Your task to perform on an android device: change text size in settings app Image 0: 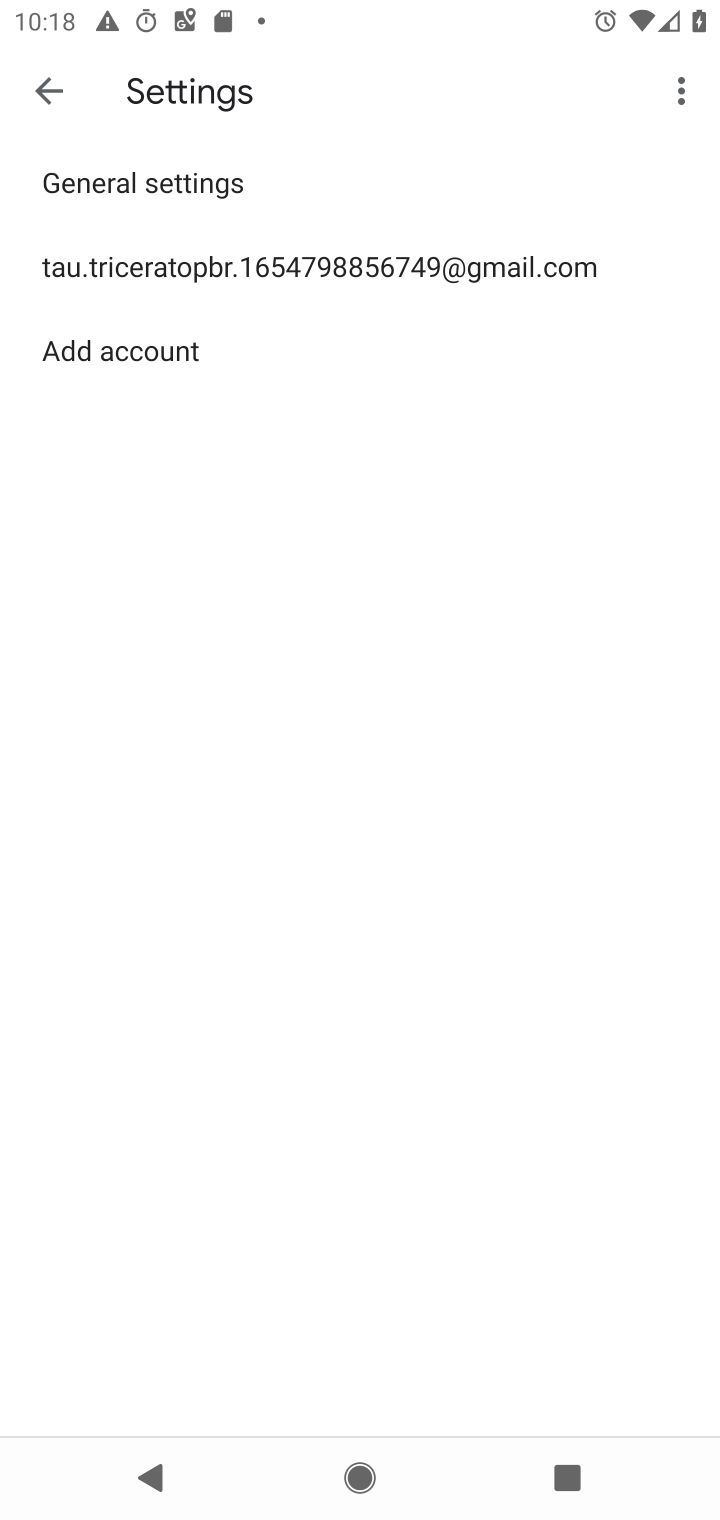
Step 0: press home button
Your task to perform on an android device: change text size in settings app Image 1: 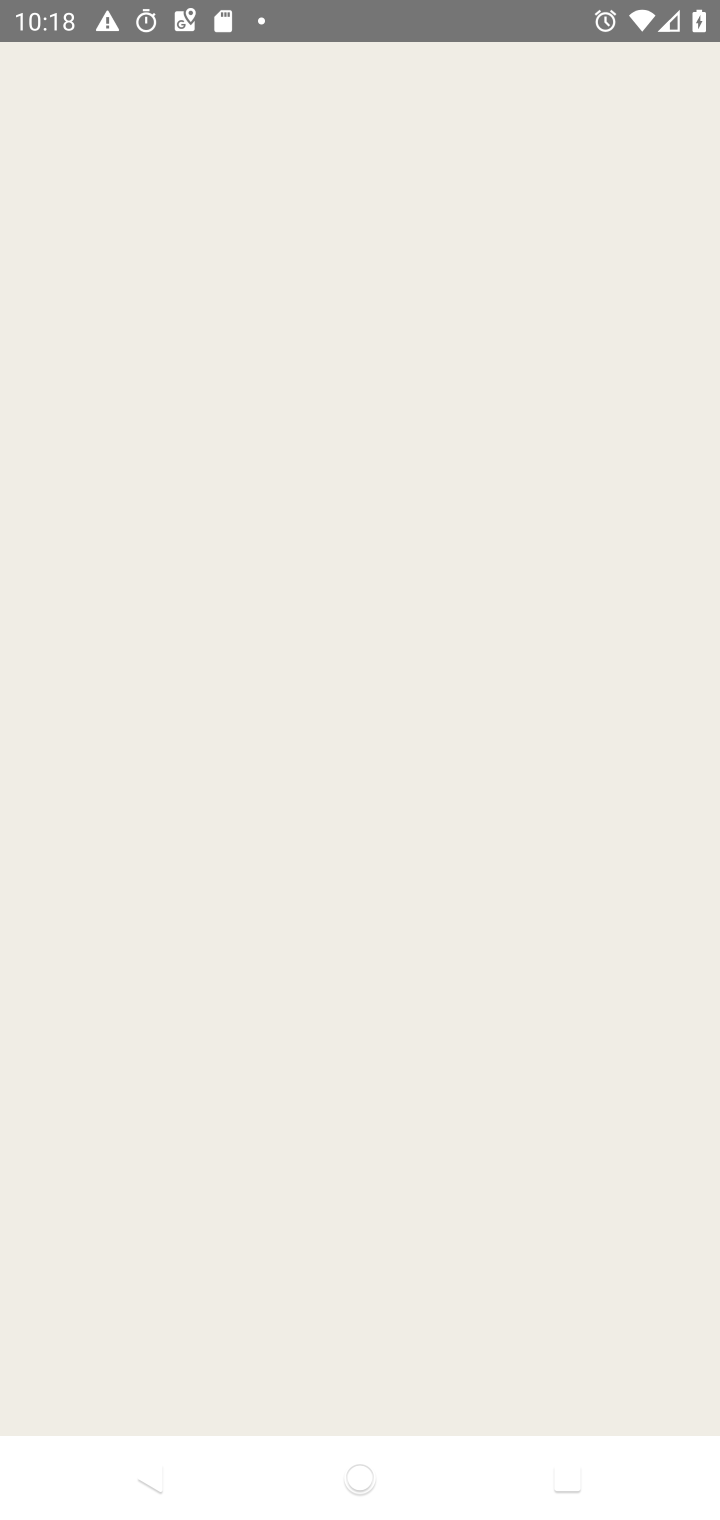
Step 1: press home button
Your task to perform on an android device: change text size in settings app Image 2: 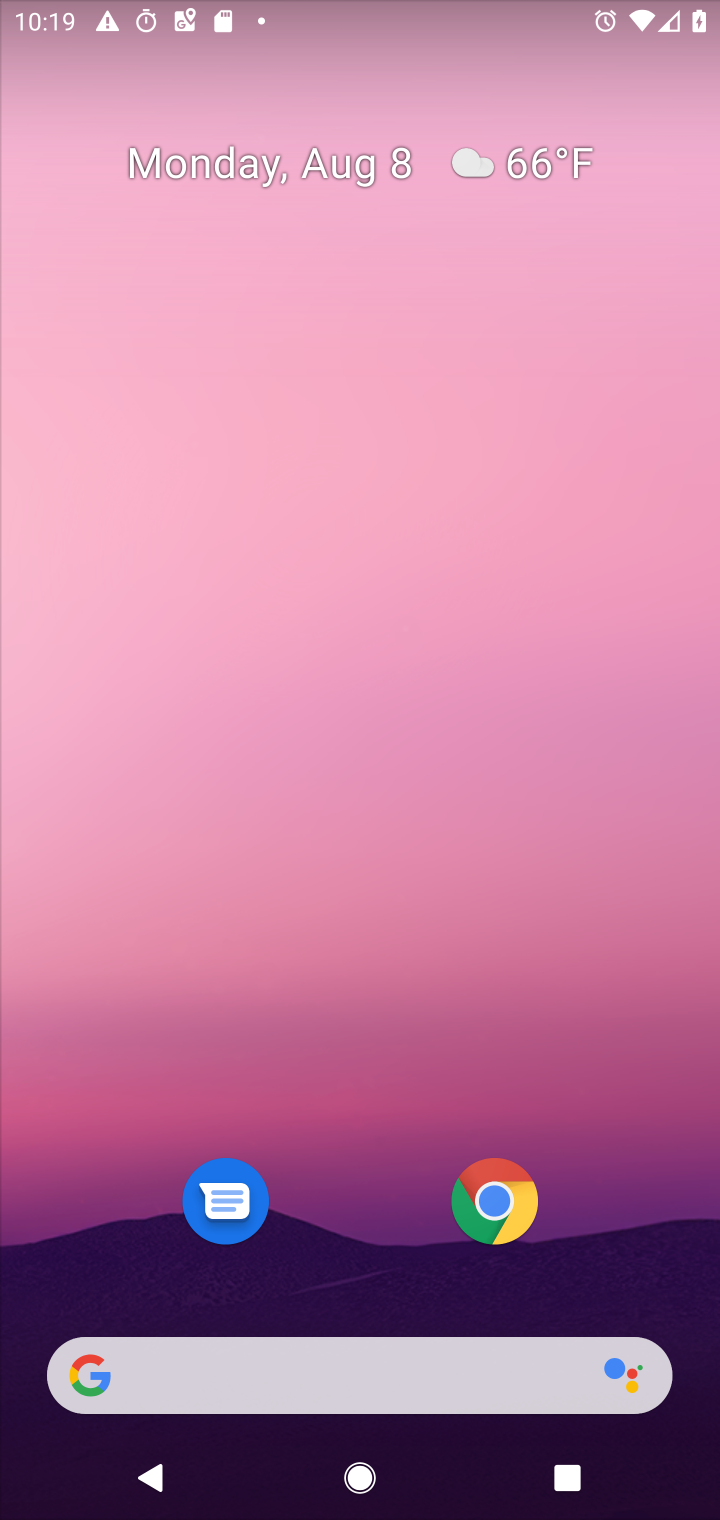
Step 2: drag from (402, 997) to (481, 184)
Your task to perform on an android device: change text size in settings app Image 3: 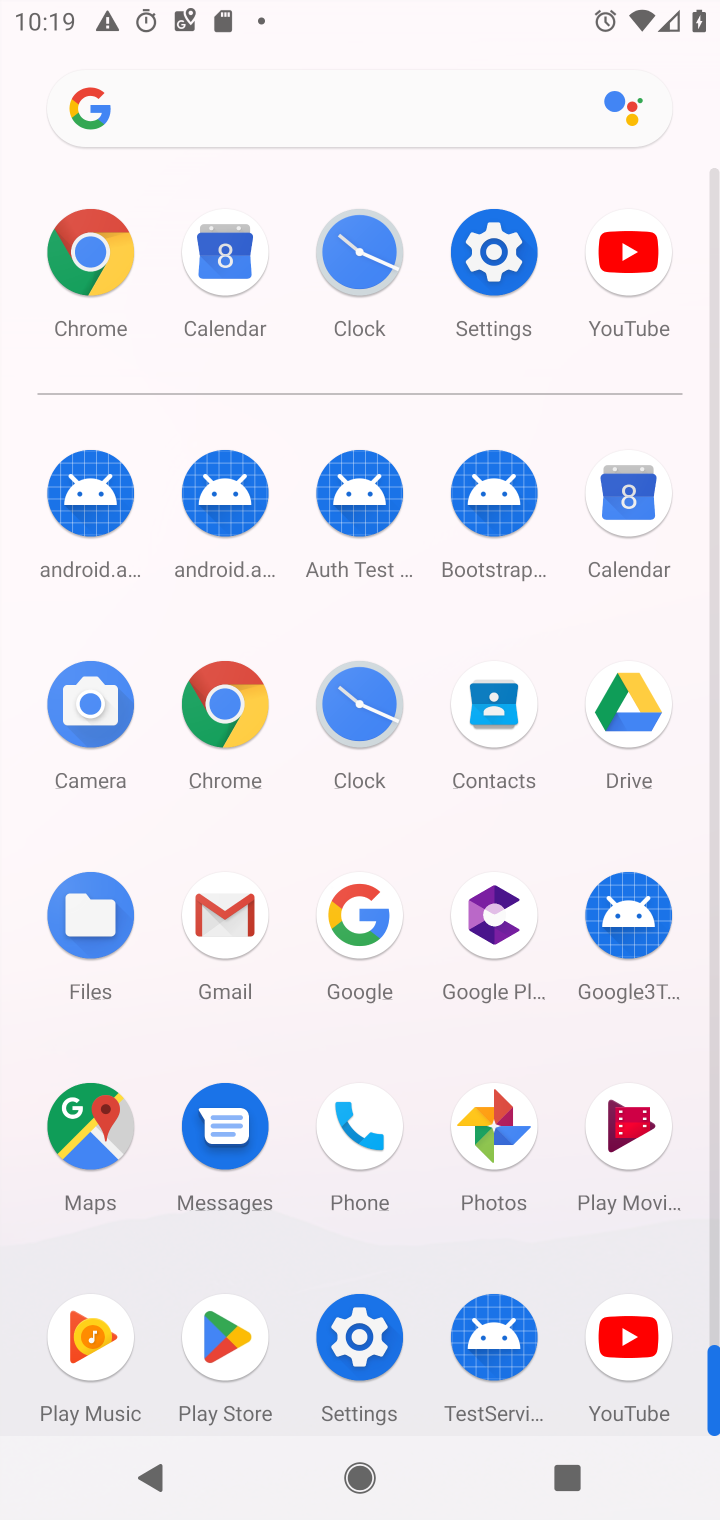
Step 3: click (498, 255)
Your task to perform on an android device: change text size in settings app Image 4: 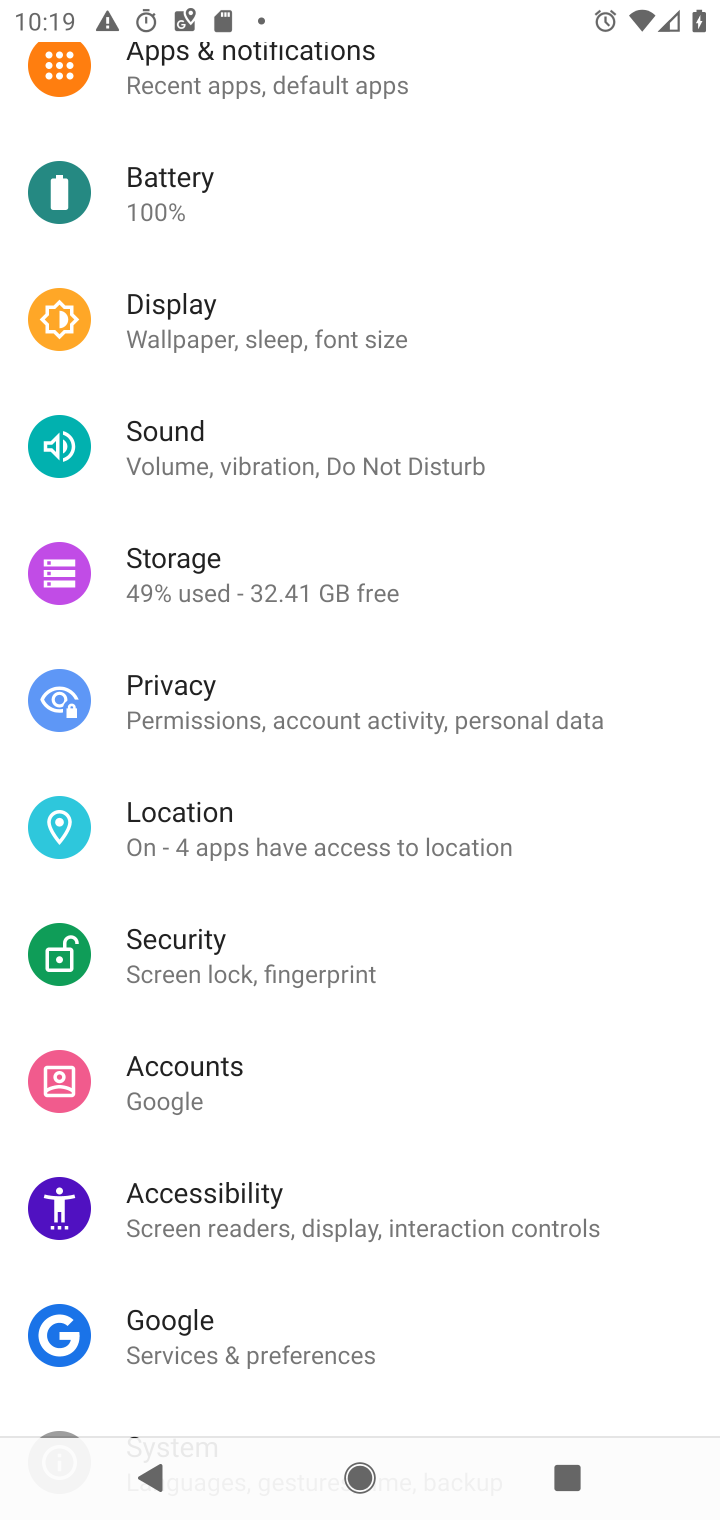
Step 4: drag from (546, 255) to (580, 416)
Your task to perform on an android device: change text size in settings app Image 5: 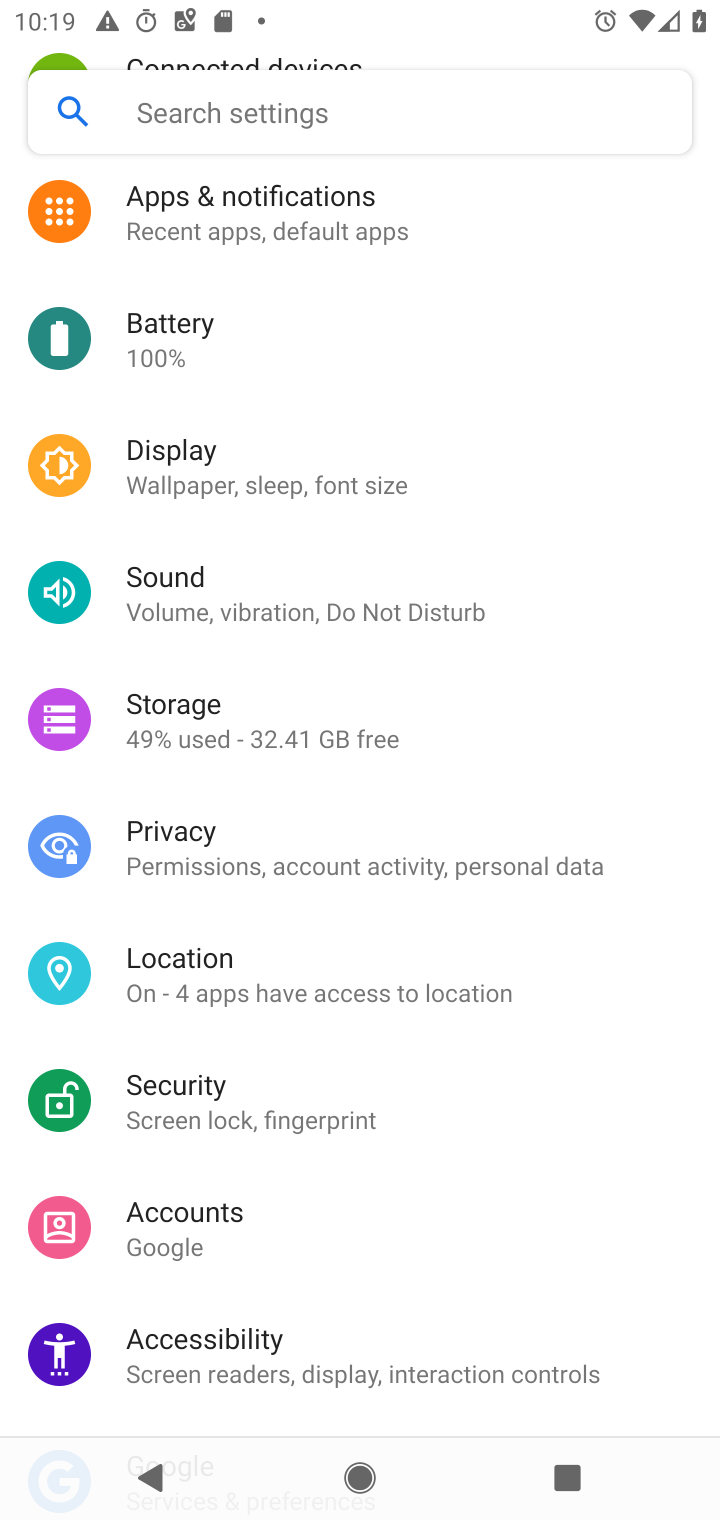
Step 5: drag from (590, 247) to (599, 571)
Your task to perform on an android device: change text size in settings app Image 6: 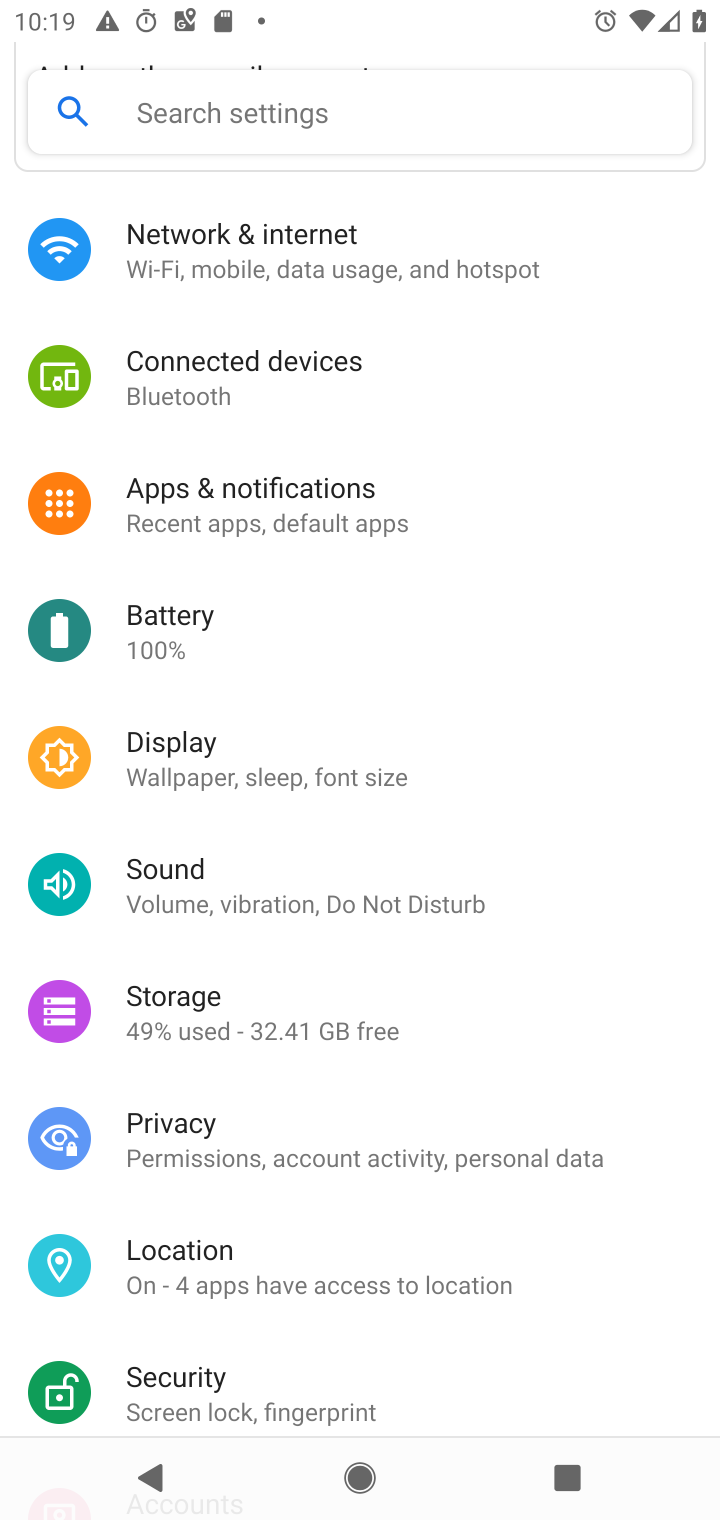
Step 6: drag from (597, 300) to (587, 679)
Your task to perform on an android device: change text size in settings app Image 7: 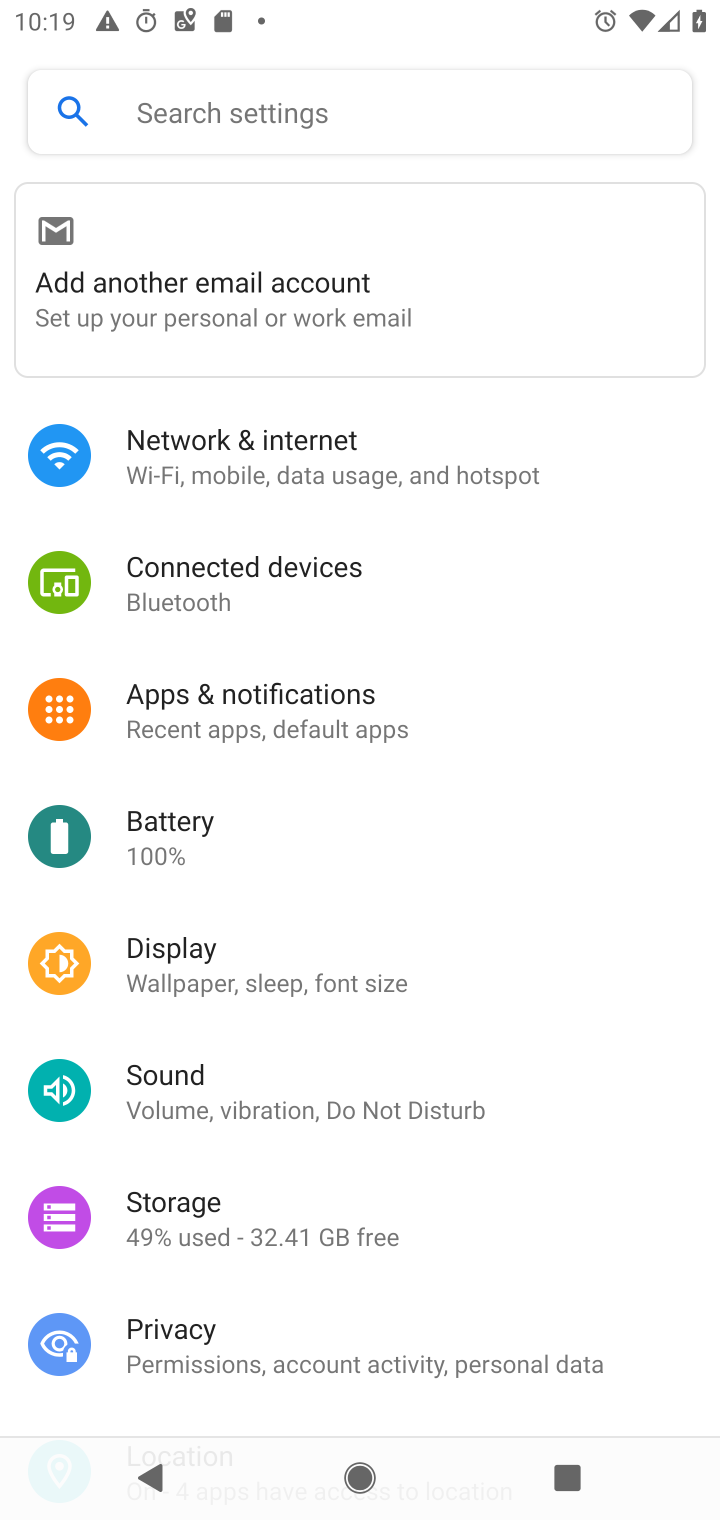
Step 7: click (257, 969)
Your task to perform on an android device: change text size in settings app Image 8: 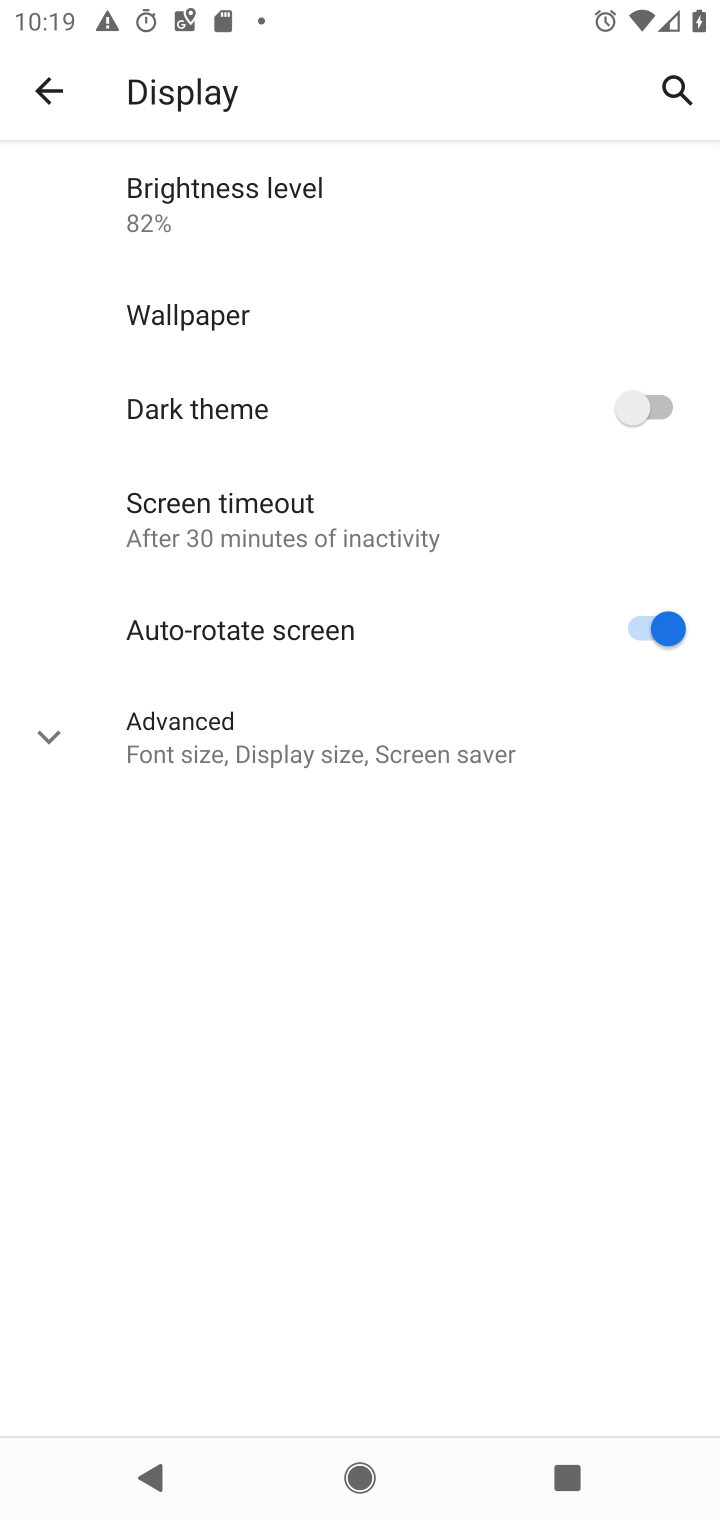
Step 8: click (321, 739)
Your task to perform on an android device: change text size in settings app Image 9: 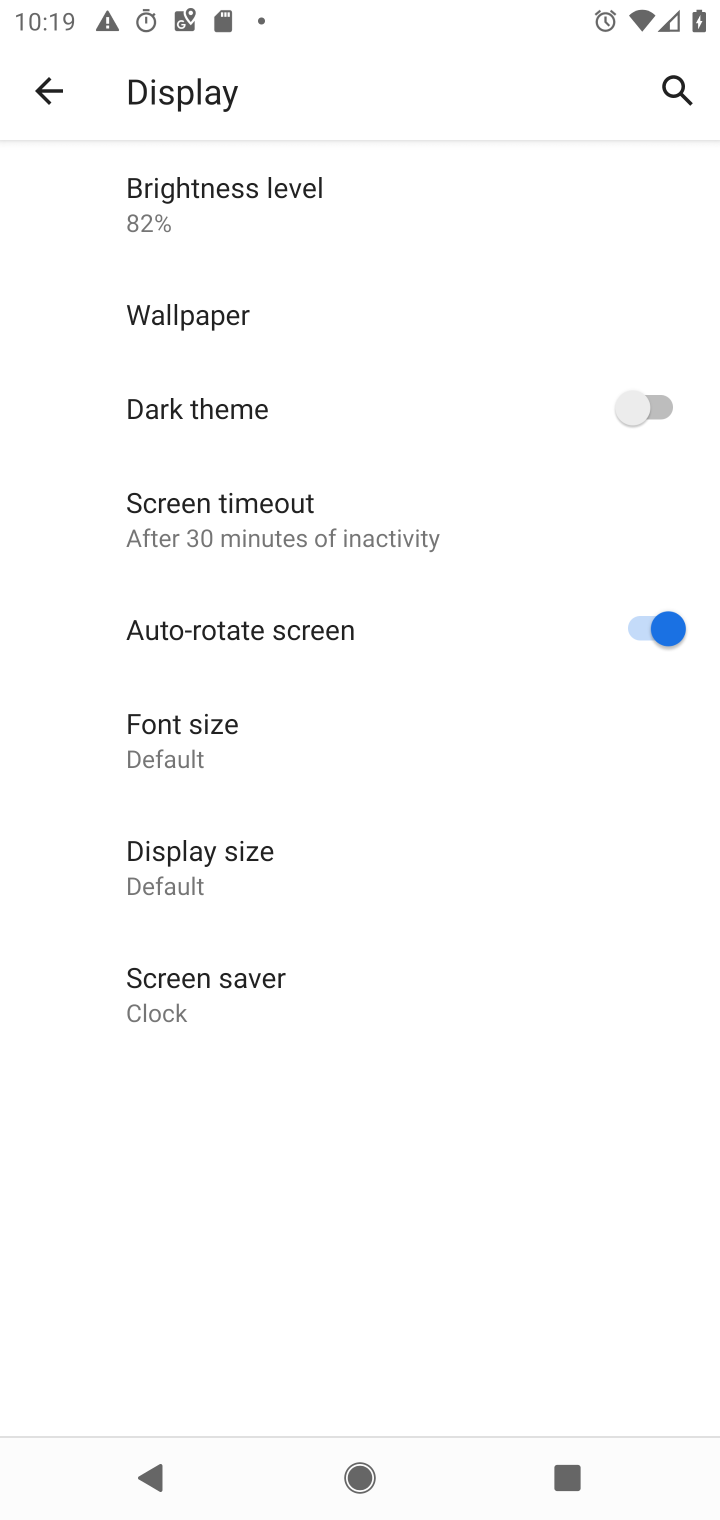
Step 9: click (212, 756)
Your task to perform on an android device: change text size in settings app Image 10: 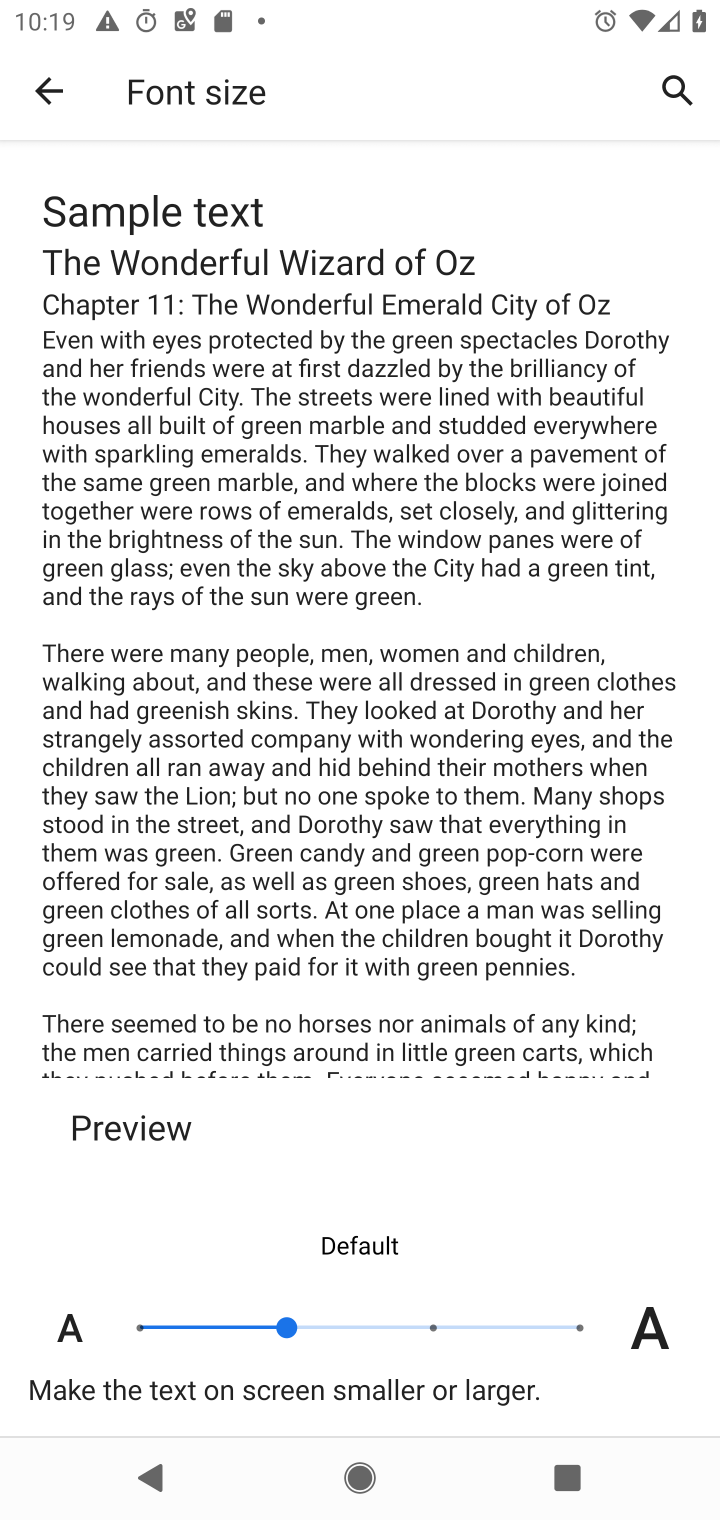
Step 10: click (572, 1332)
Your task to perform on an android device: change text size in settings app Image 11: 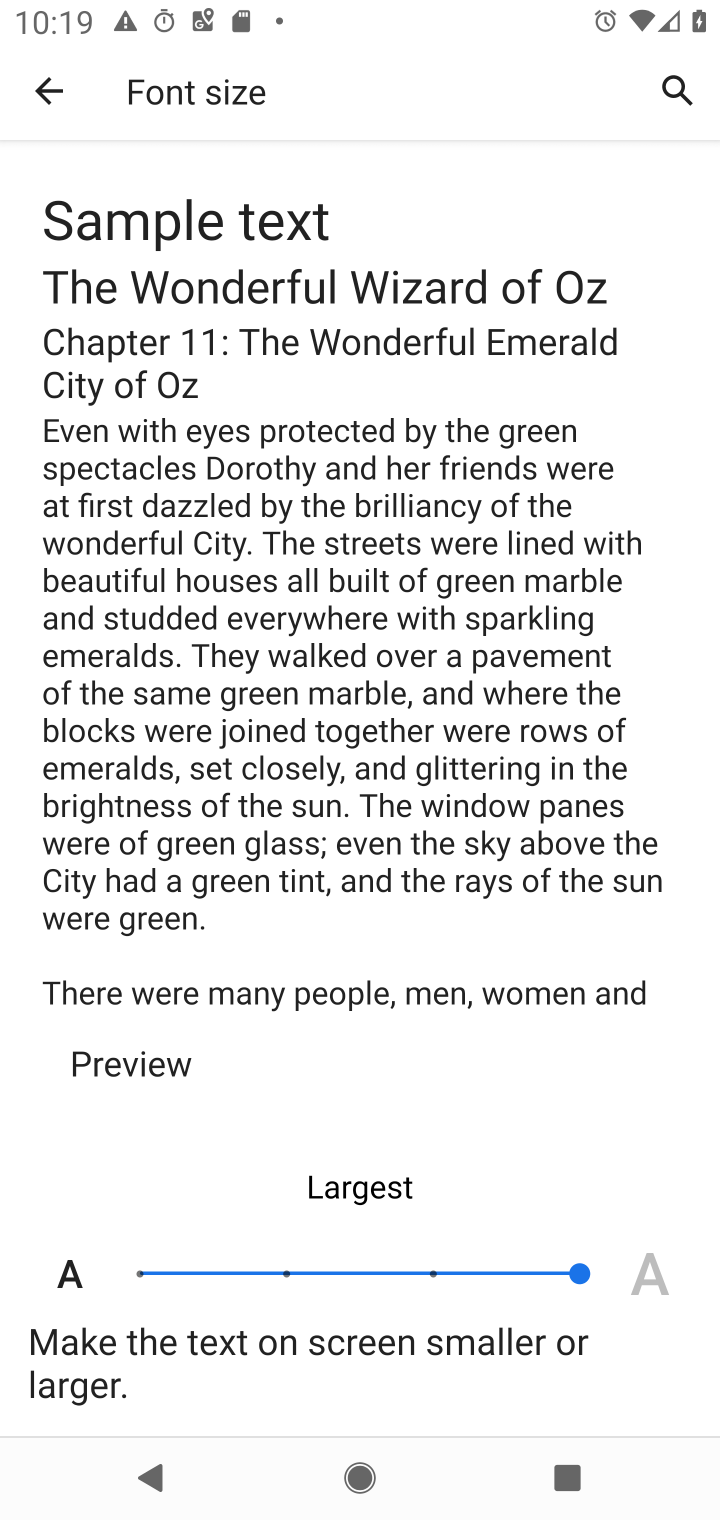
Step 11: task complete